Your task to perform on an android device: move an email to a new category in the gmail app Image 0: 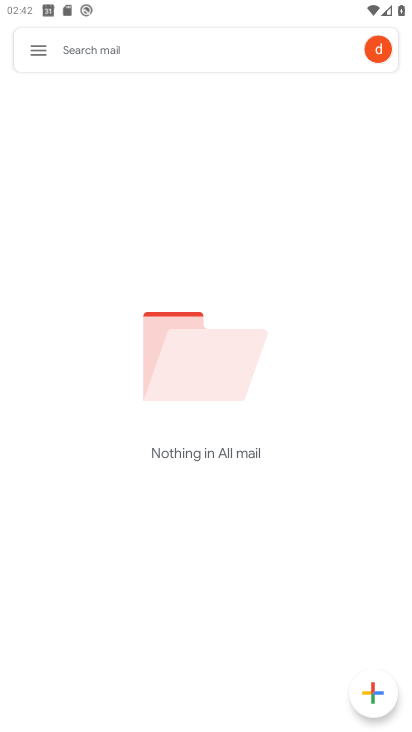
Step 0: press home button
Your task to perform on an android device: move an email to a new category in the gmail app Image 1: 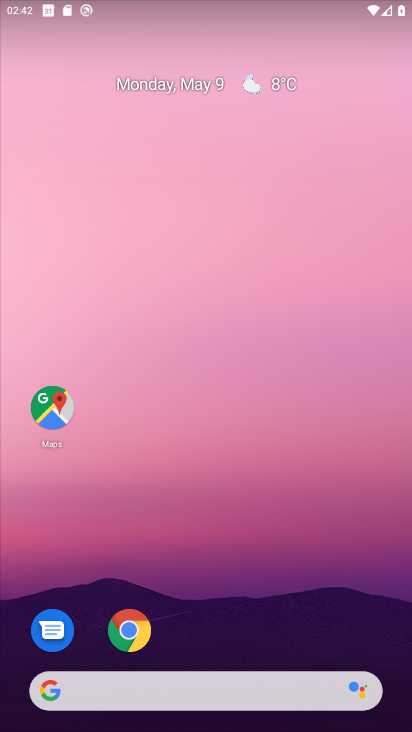
Step 1: drag from (195, 590) to (318, 178)
Your task to perform on an android device: move an email to a new category in the gmail app Image 2: 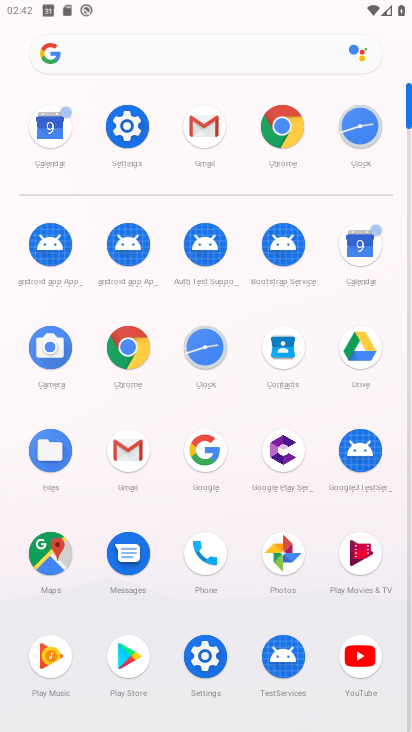
Step 2: click (138, 445)
Your task to perform on an android device: move an email to a new category in the gmail app Image 3: 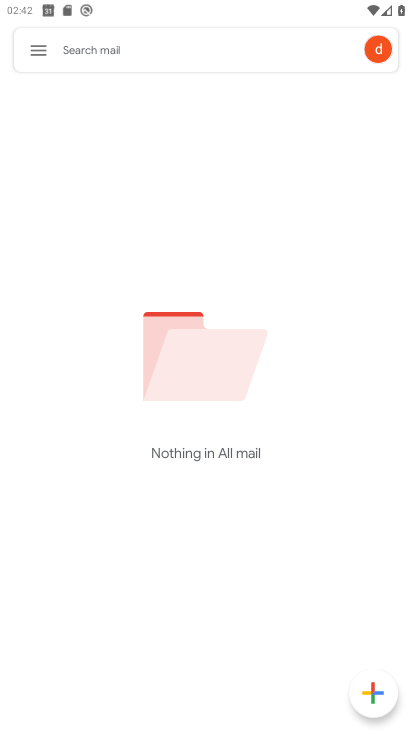
Step 3: task complete